Your task to perform on an android device: toggle sleep mode Image 0: 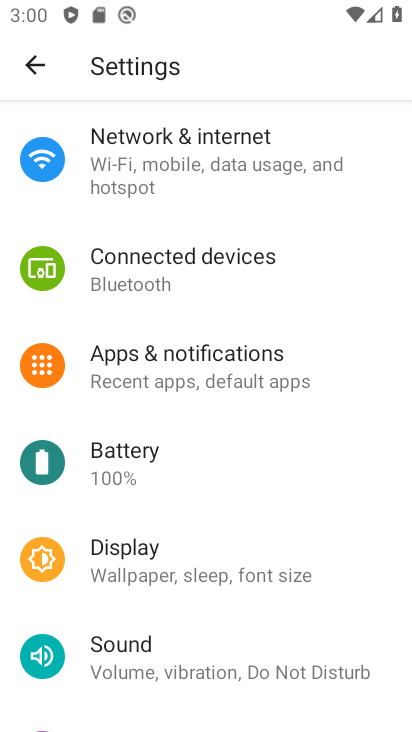
Step 0: task impossible